Your task to perform on an android device: Open Youtube and go to "Your channel" Image 0: 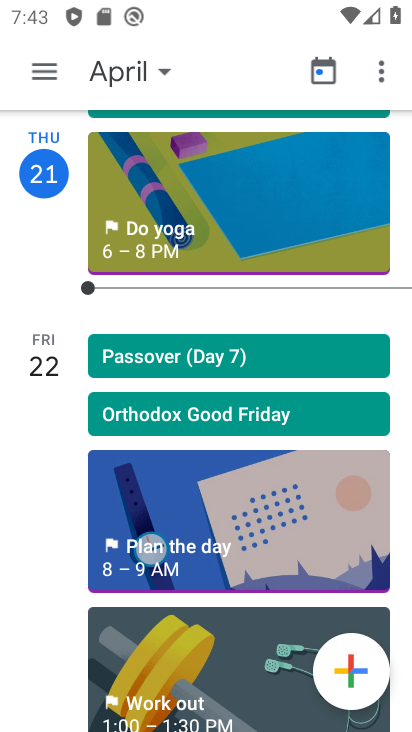
Step 0: press home button
Your task to perform on an android device: Open Youtube and go to "Your channel" Image 1: 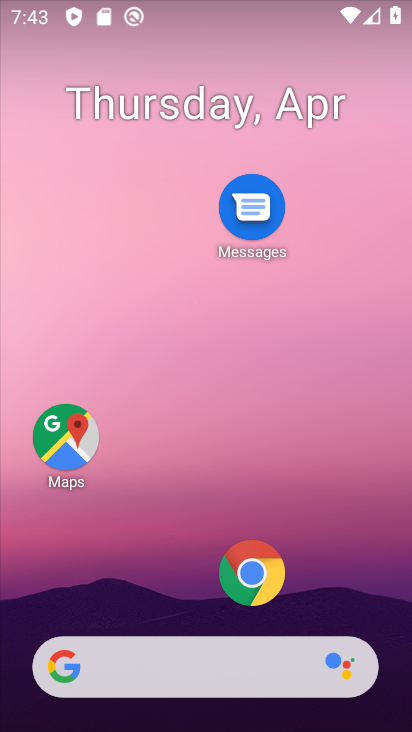
Step 1: drag from (193, 594) to (228, 161)
Your task to perform on an android device: Open Youtube and go to "Your channel" Image 2: 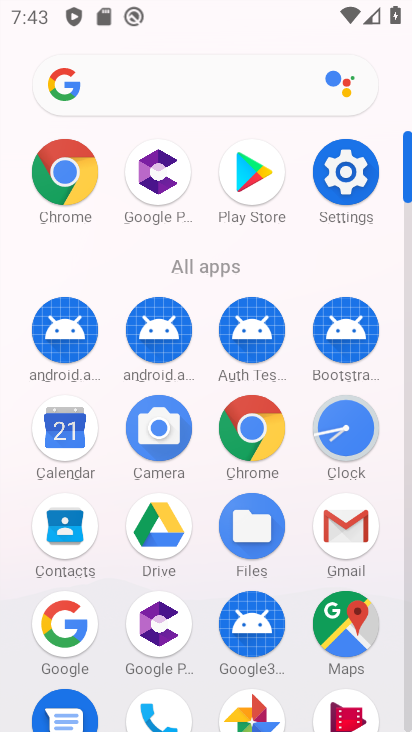
Step 2: drag from (203, 575) to (214, 210)
Your task to perform on an android device: Open Youtube and go to "Your channel" Image 3: 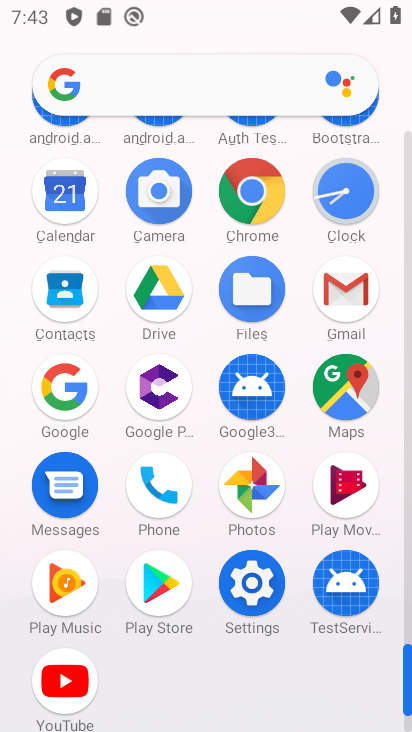
Step 3: click (67, 681)
Your task to perform on an android device: Open Youtube and go to "Your channel" Image 4: 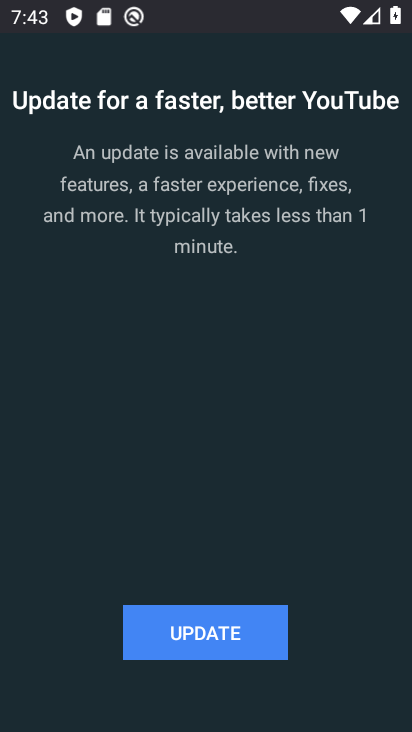
Step 4: click (211, 631)
Your task to perform on an android device: Open Youtube and go to "Your channel" Image 5: 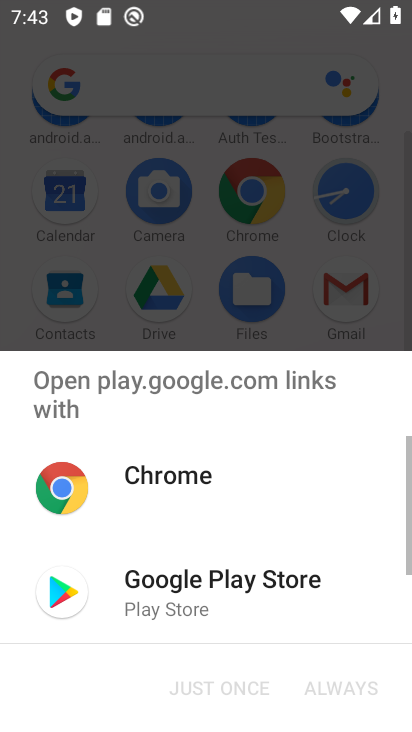
Step 5: click (157, 602)
Your task to perform on an android device: Open Youtube and go to "Your channel" Image 6: 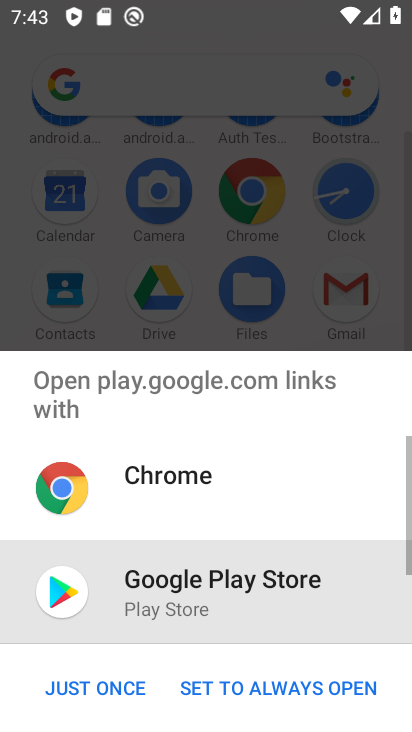
Step 6: click (100, 687)
Your task to perform on an android device: Open Youtube and go to "Your channel" Image 7: 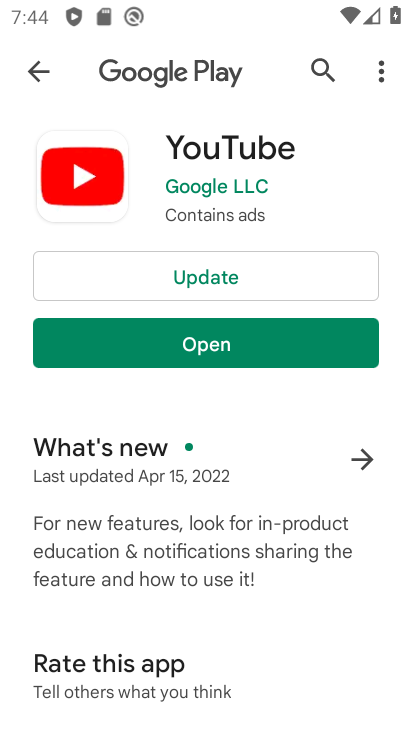
Step 7: click (198, 276)
Your task to perform on an android device: Open Youtube and go to "Your channel" Image 8: 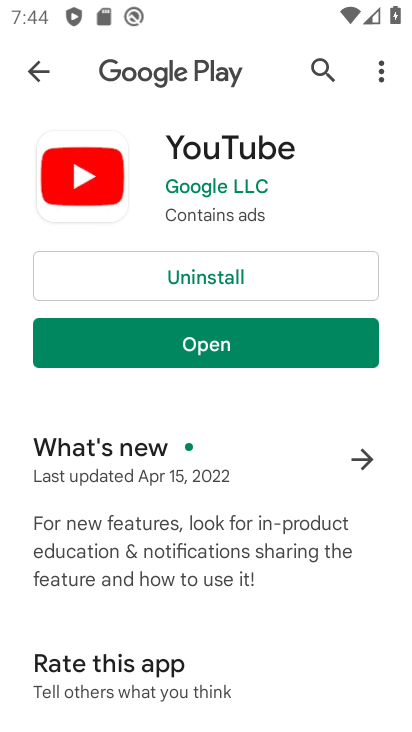
Step 8: click (205, 349)
Your task to perform on an android device: Open Youtube and go to "Your channel" Image 9: 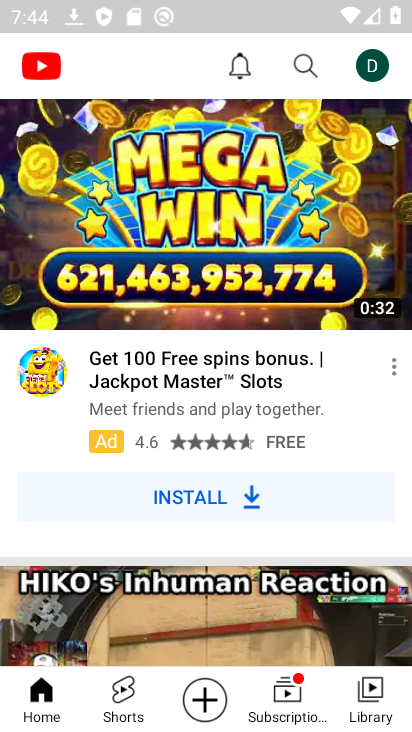
Step 9: click (366, 66)
Your task to perform on an android device: Open Youtube and go to "Your channel" Image 10: 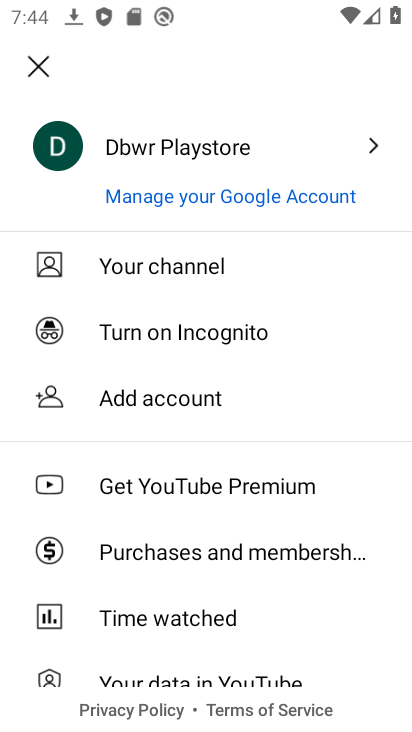
Step 10: click (173, 269)
Your task to perform on an android device: Open Youtube and go to "Your channel" Image 11: 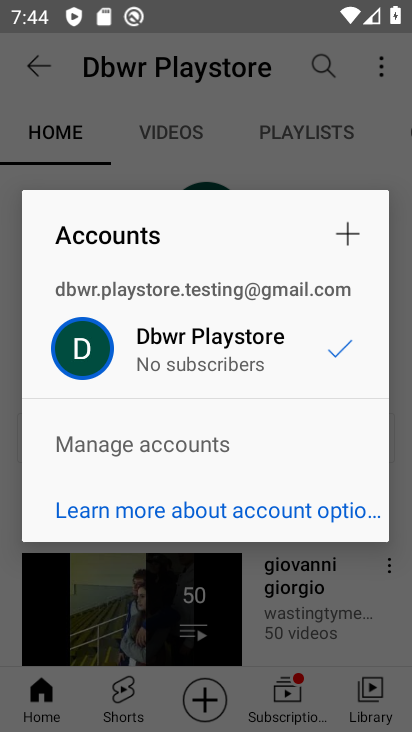
Step 11: click (259, 135)
Your task to perform on an android device: Open Youtube and go to "Your channel" Image 12: 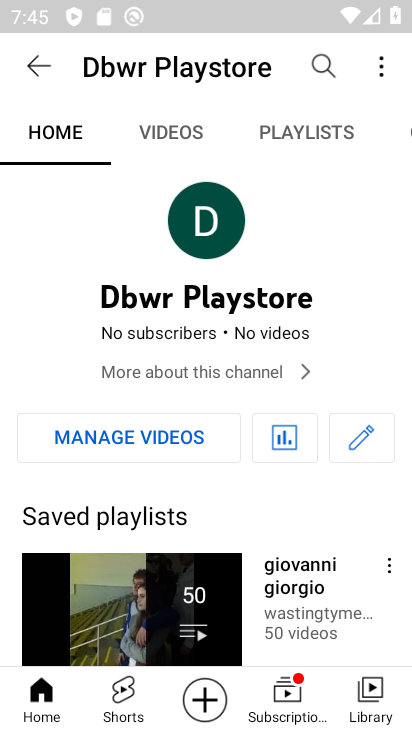
Step 12: task complete